Your task to perform on an android device: turn off airplane mode Image 0: 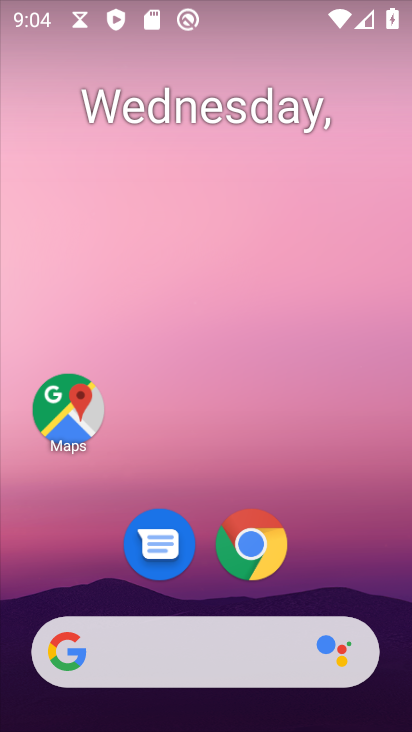
Step 0: drag from (141, 644) to (275, 98)
Your task to perform on an android device: turn off airplane mode Image 1: 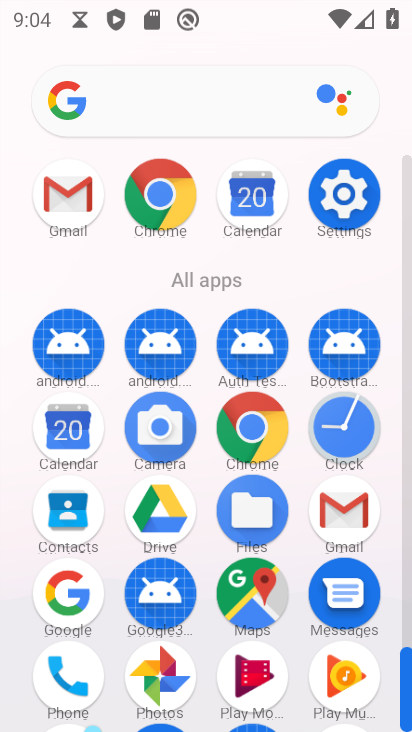
Step 1: click (344, 209)
Your task to perform on an android device: turn off airplane mode Image 2: 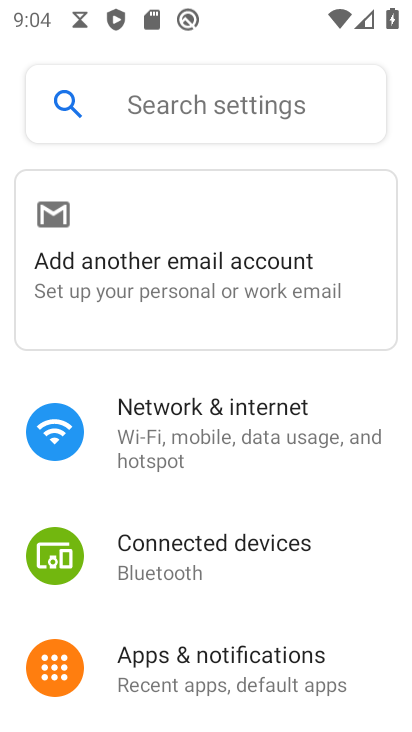
Step 2: click (200, 435)
Your task to perform on an android device: turn off airplane mode Image 3: 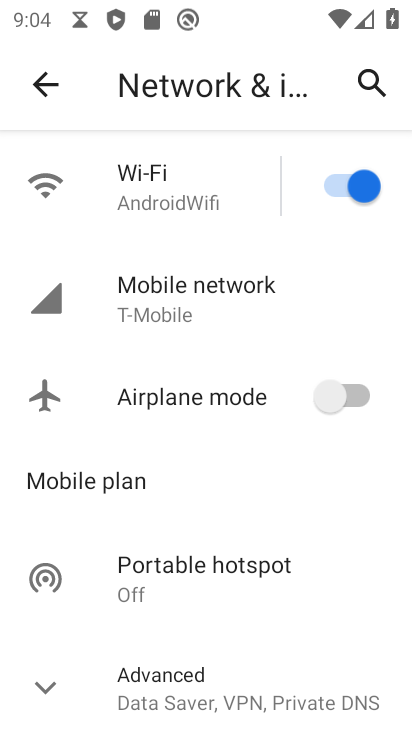
Step 3: task complete